Your task to perform on an android device: star an email in the gmail app Image 0: 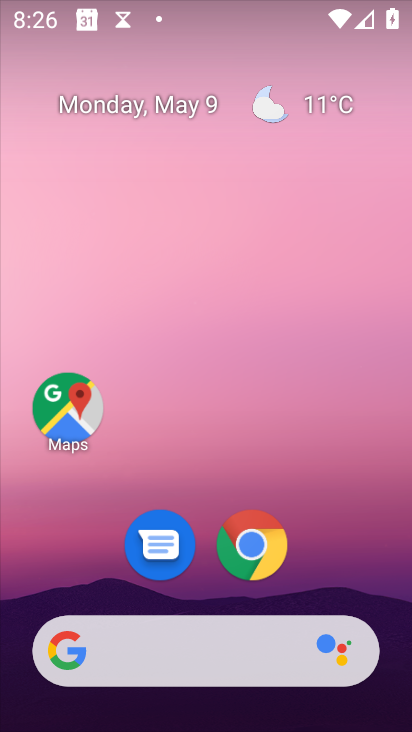
Step 0: drag from (225, 718) to (224, 114)
Your task to perform on an android device: star an email in the gmail app Image 1: 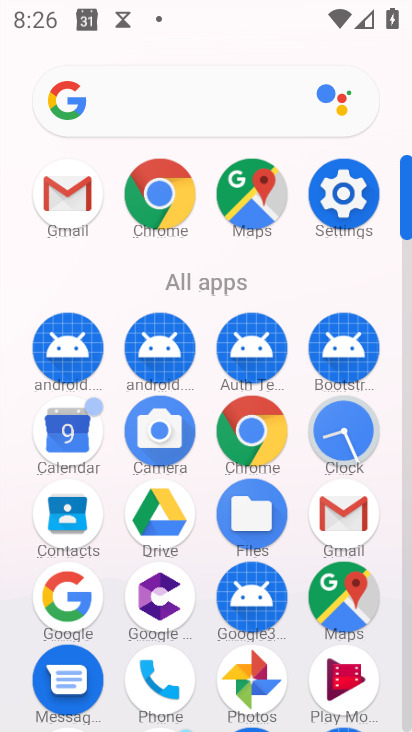
Step 1: click (353, 510)
Your task to perform on an android device: star an email in the gmail app Image 2: 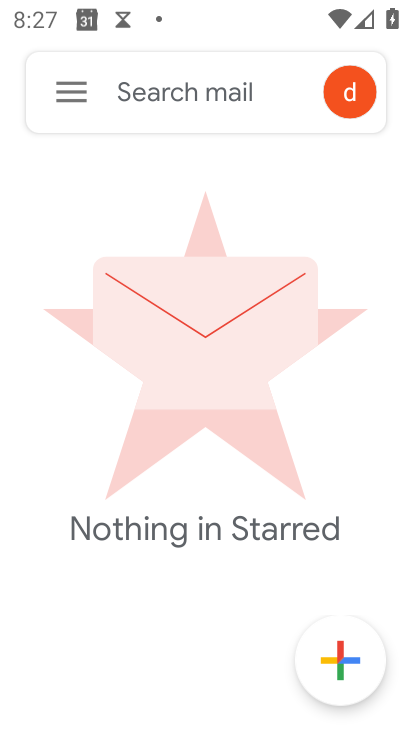
Step 2: click (66, 94)
Your task to perform on an android device: star an email in the gmail app Image 3: 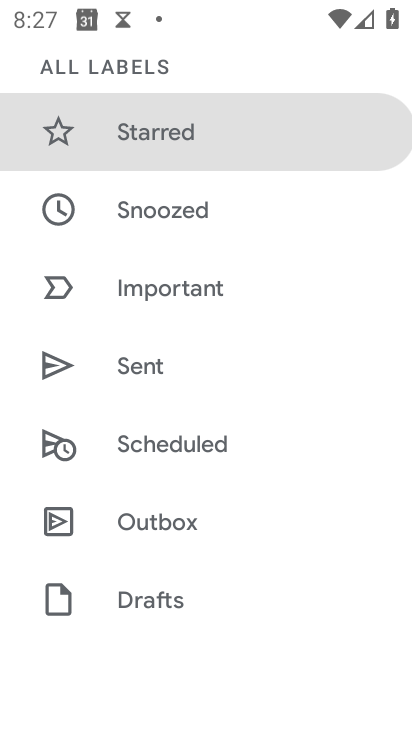
Step 3: drag from (277, 133) to (270, 604)
Your task to perform on an android device: star an email in the gmail app Image 4: 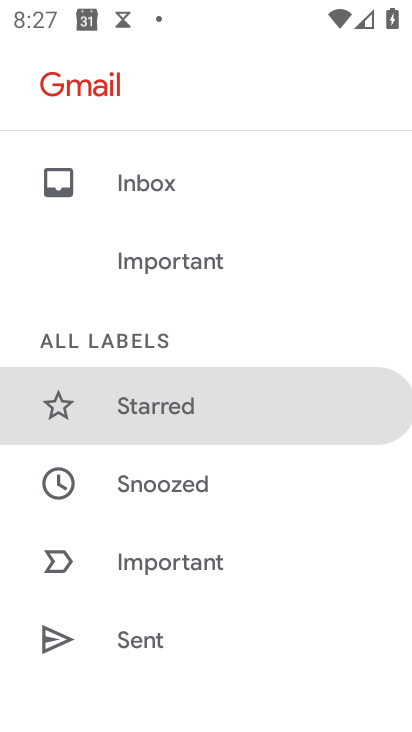
Step 4: click (130, 179)
Your task to perform on an android device: star an email in the gmail app Image 5: 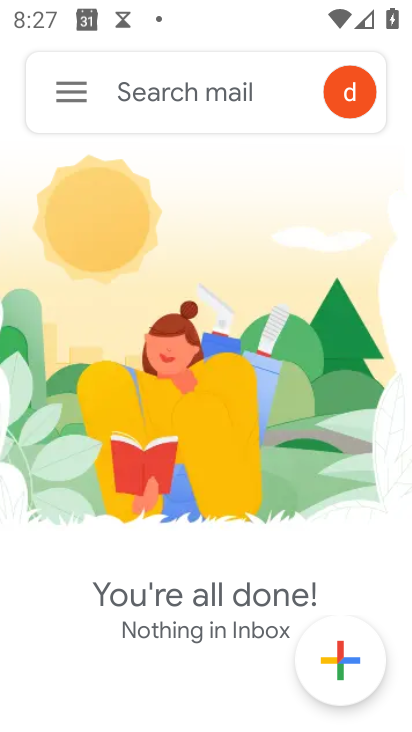
Step 5: task complete